Your task to perform on an android device: toggle translation in the chrome app Image 0: 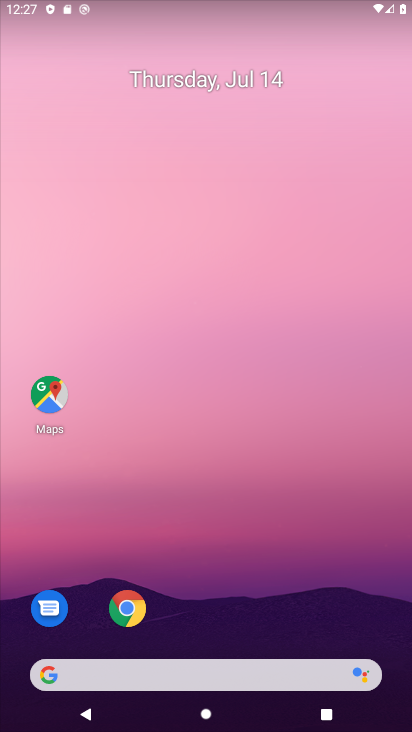
Step 0: drag from (259, 624) to (324, 60)
Your task to perform on an android device: toggle translation in the chrome app Image 1: 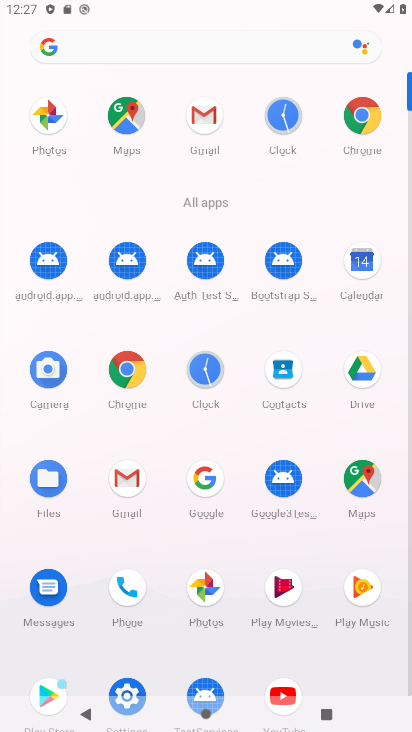
Step 1: click (145, 354)
Your task to perform on an android device: toggle translation in the chrome app Image 2: 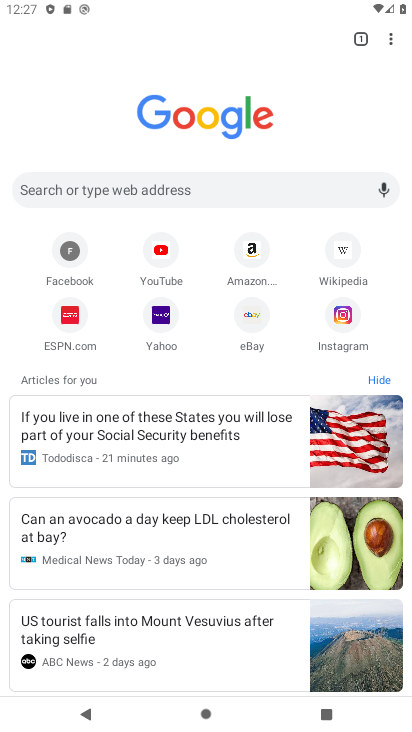
Step 2: click (393, 38)
Your task to perform on an android device: toggle translation in the chrome app Image 3: 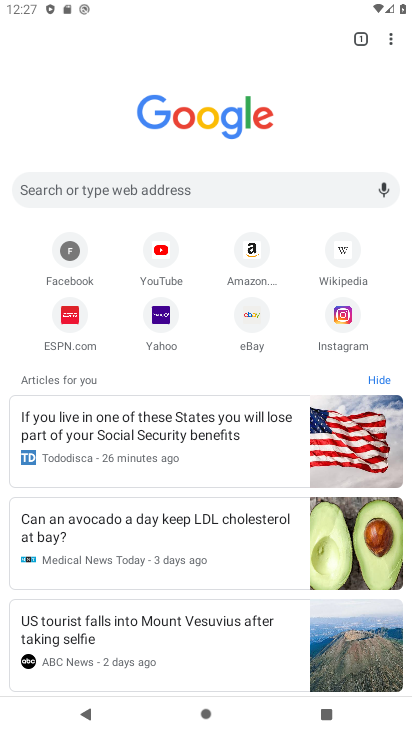
Step 3: drag from (393, 38) to (267, 170)
Your task to perform on an android device: toggle translation in the chrome app Image 4: 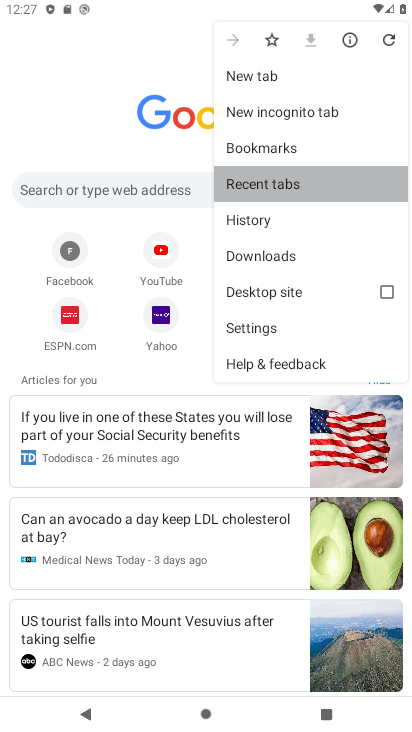
Step 4: click (267, 170)
Your task to perform on an android device: toggle translation in the chrome app Image 5: 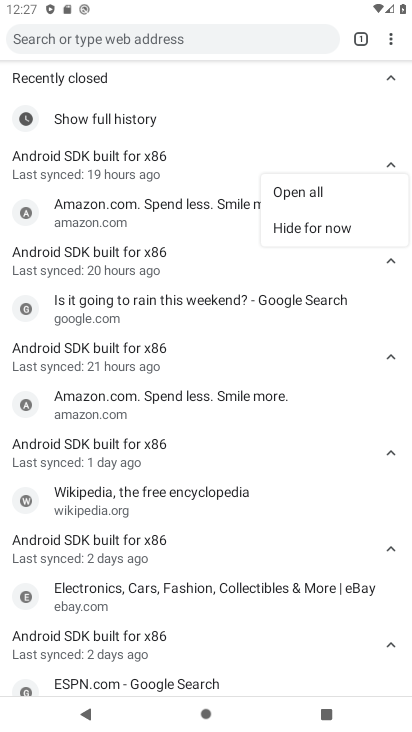
Step 5: press back button
Your task to perform on an android device: toggle translation in the chrome app Image 6: 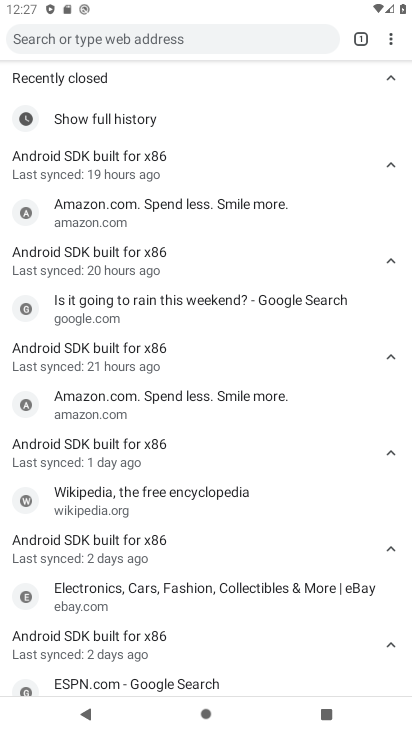
Step 6: press back button
Your task to perform on an android device: toggle translation in the chrome app Image 7: 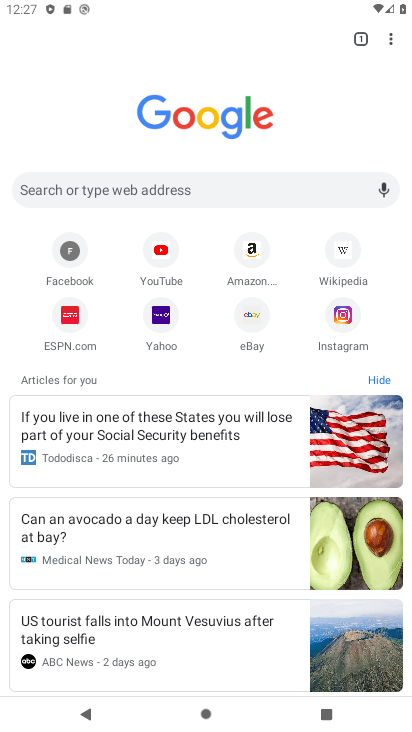
Step 7: drag from (397, 43) to (259, 326)
Your task to perform on an android device: toggle translation in the chrome app Image 8: 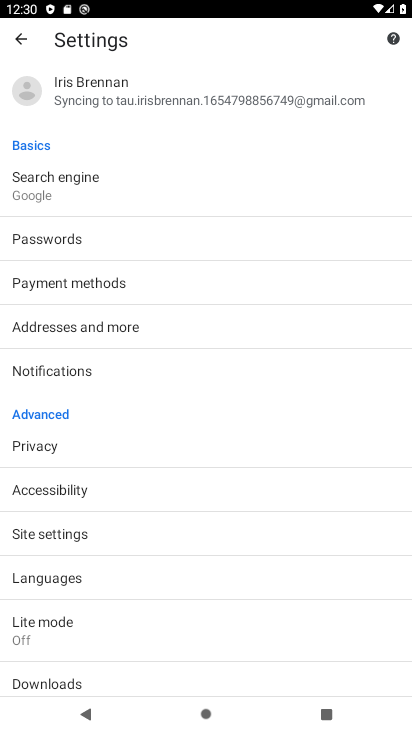
Step 8: click (80, 594)
Your task to perform on an android device: toggle translation in the chrome app Image 9: 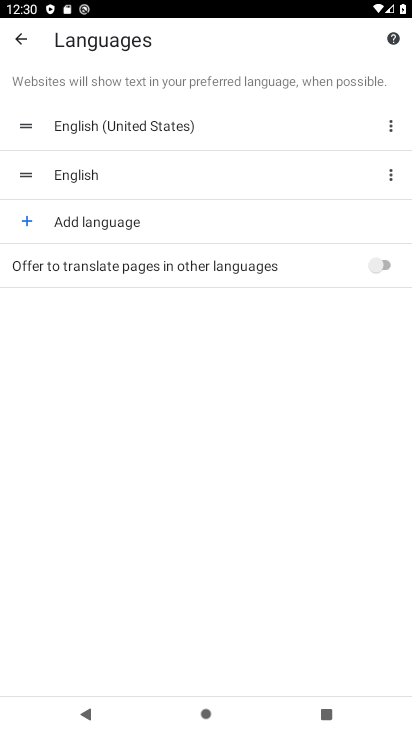
Step 9: click (219, 267)
Your task to perform on an android device: toggle translation in the chrome app Image 10: 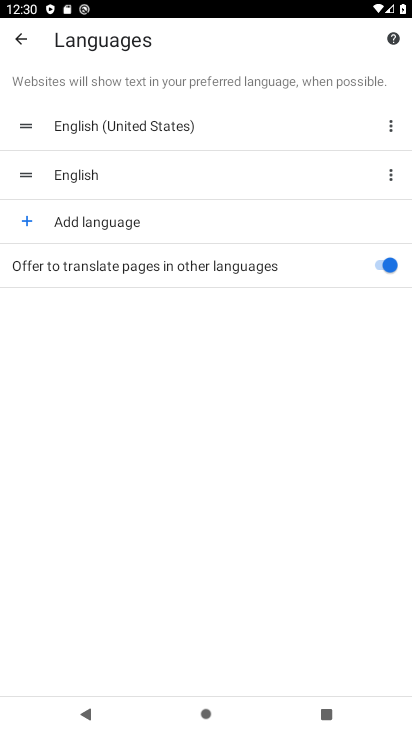
Step 10: task complete